Your task to perform on an android device: Open Google Chrome Image 0: 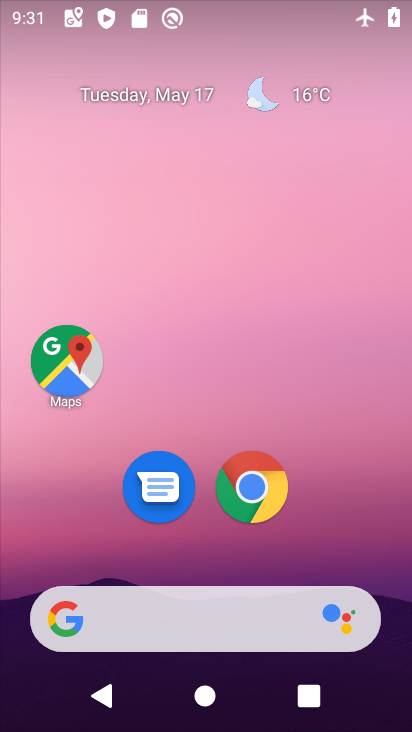
Step 0: drag from (225, 543) to (320, 0)
Your task to perform on an android device: Open Google Chrome Image 1: 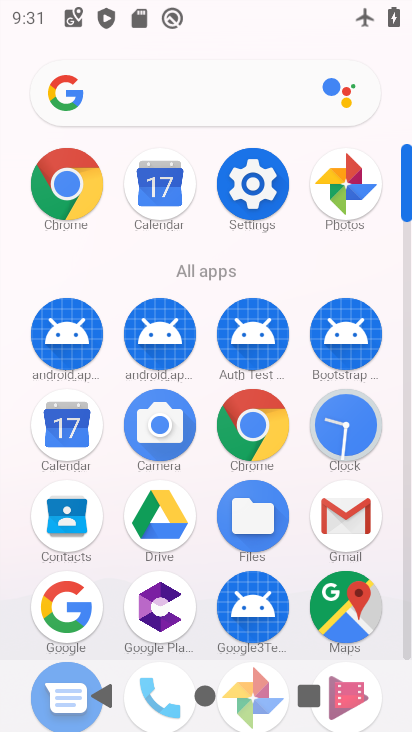
Step 1: click (249, 413)
Your task to perform on an android device: Open Google Chrome Image 2: 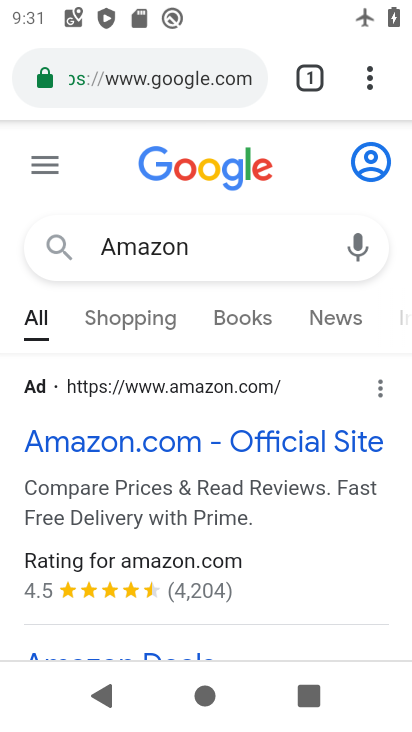
Step 2: task complete